Your task to perform on an android device: turn on the 12-hour format for clock Image 0: 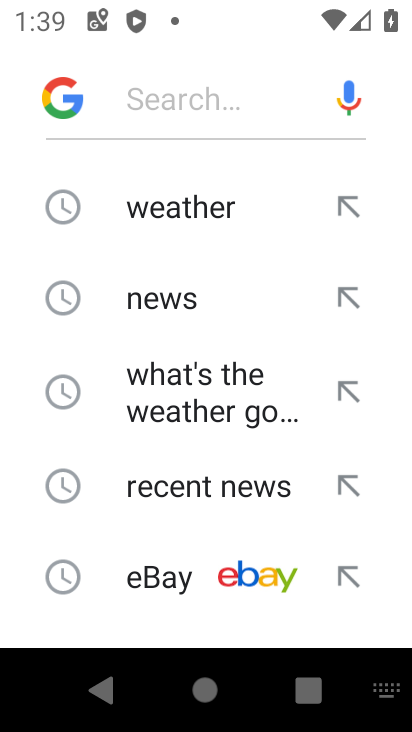
Step 0: press home button
Your task to perform on an android device: turn on the 12-hour format for clock Image 1: 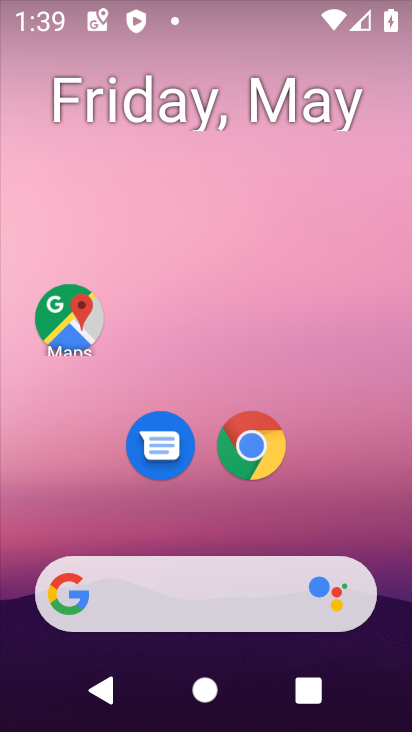
Step 1: drag from (398, 604) to (275, 34)
Your task to perform on an android device: turn on the 12-hour format for clock Image 2: 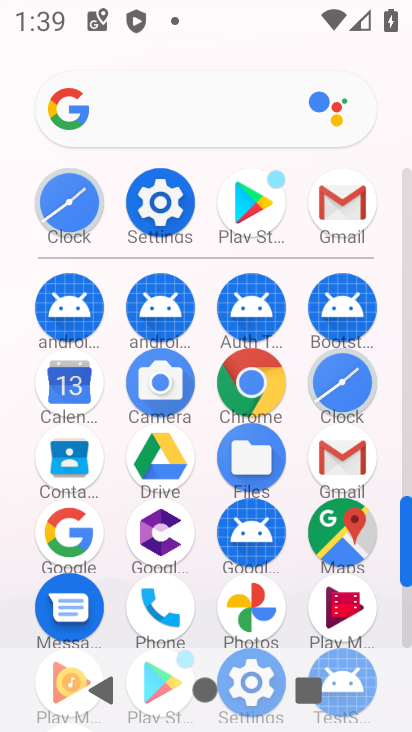
Step 2: click (339, 384)
Your task to perform on an android device: turn on the 12-hour format for clock Image 3: 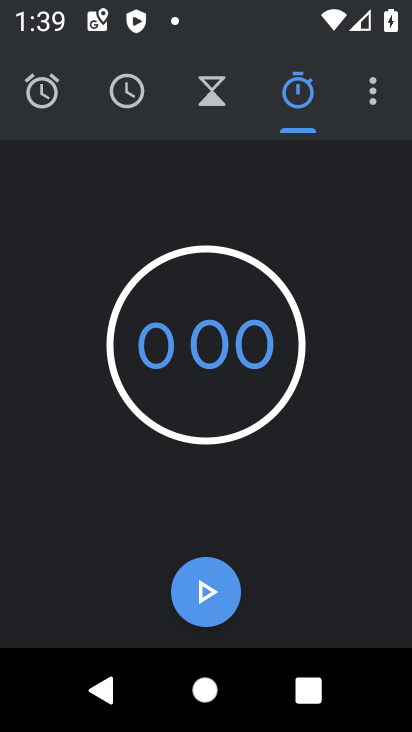
Step 3: click (373, 99)
Your task to perform on an android device: turn on the 12-hour format for clock Image 4: 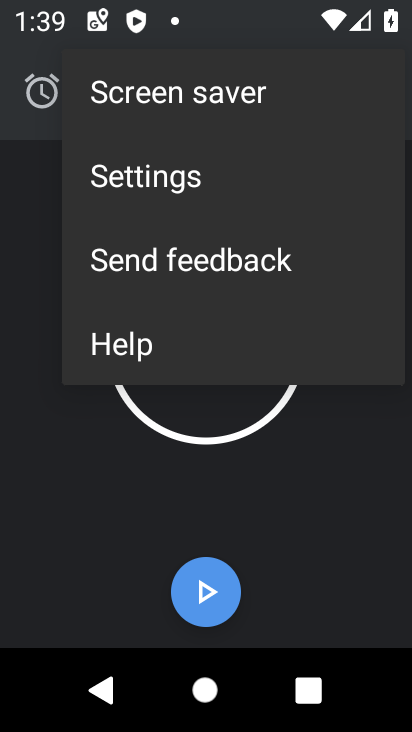
Step 4: click (142, 179)
Your task to perform on an android device: turn on the 12-hour format for clock Image 5: 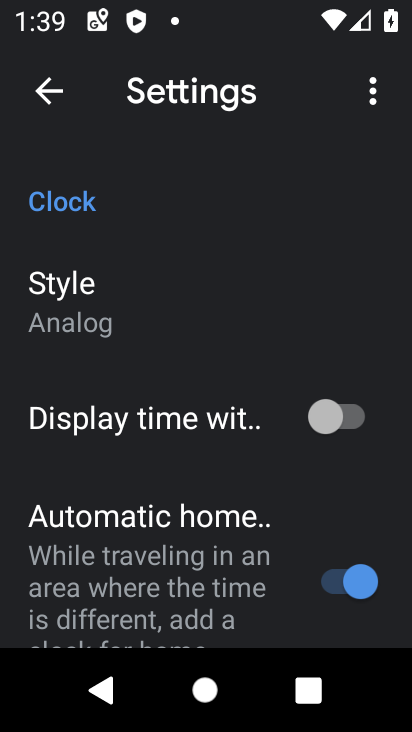
Step 5: drag from (222, 515) to (273, 314)
Your task to perform on an android device: turn on the 12-hour format for clock Image 6: 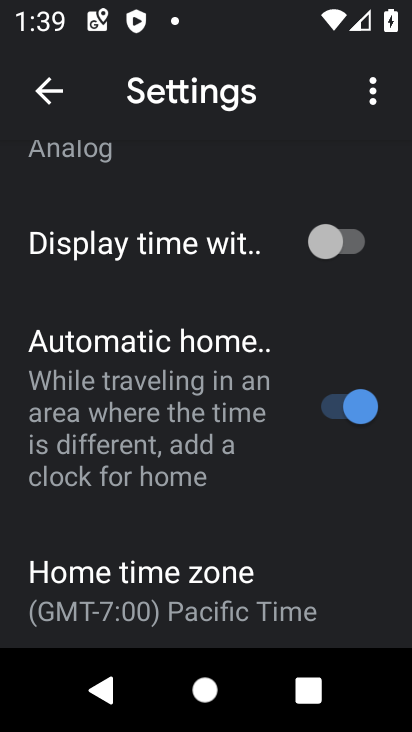
Step 6: drag from (257, 583) to (260, 223)
Your task to perform on an android device: turn on the 12-hour format for clock Image 7: 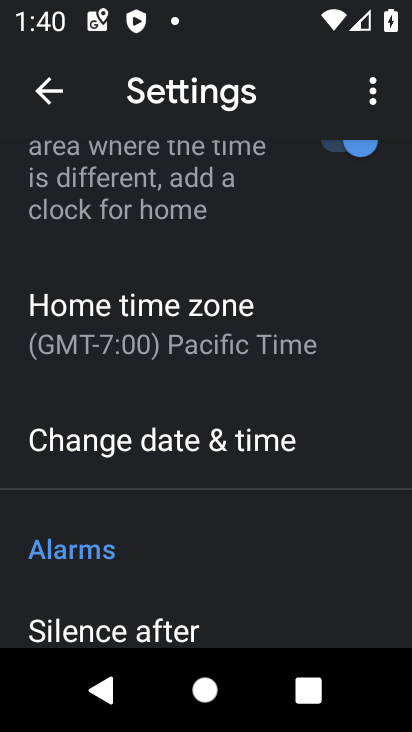
Step 7: drag from (185, 511) to (209, 367)
Your task to perform on an android device: turn on the 12-hour format for clock Image 8: 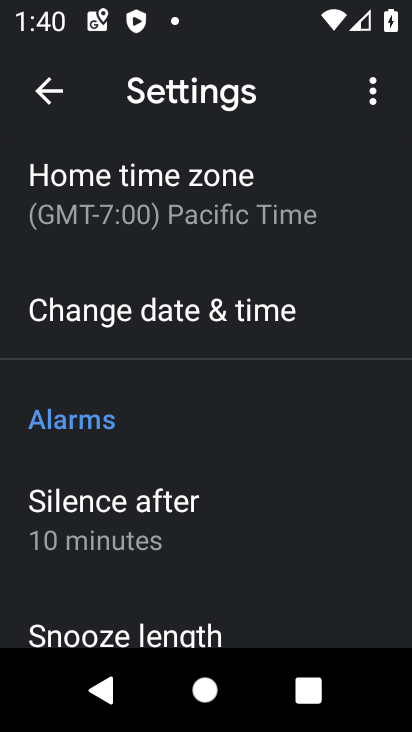
Step 8: click (154, 297)
Your task to perform on an android device: turn on the 12-hour format for clock Image 9: 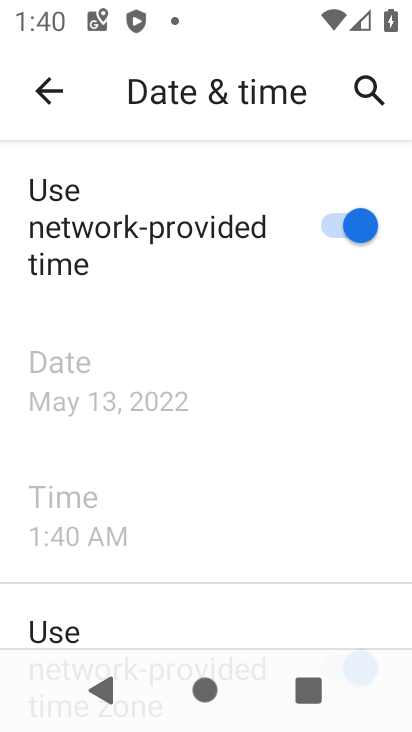
Step 9: task complete